Your task to perform on an android device: set the timer Image 0: 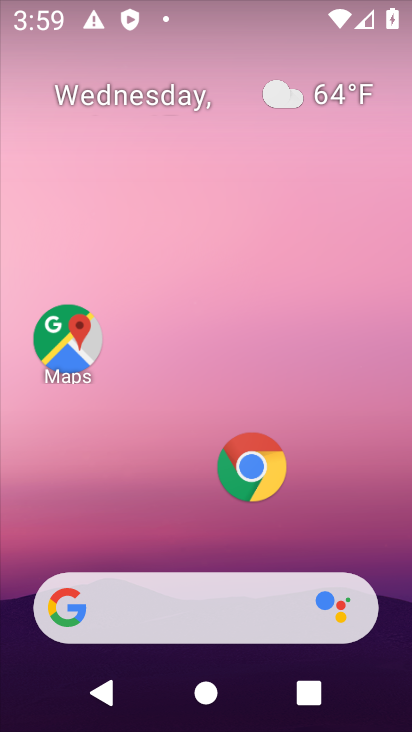
Step 0: drag from (152, 502) to (410, 144)
Your task to perform on an android device: set the timer Image 1: 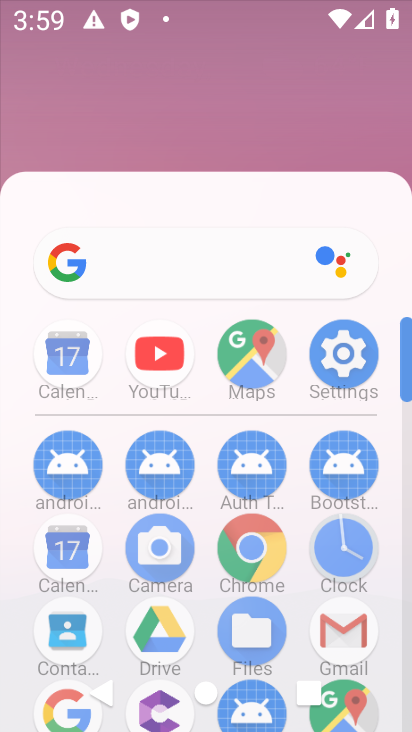
Step 1: task complete